Your task to perform on an android device: check google app version Image 0: 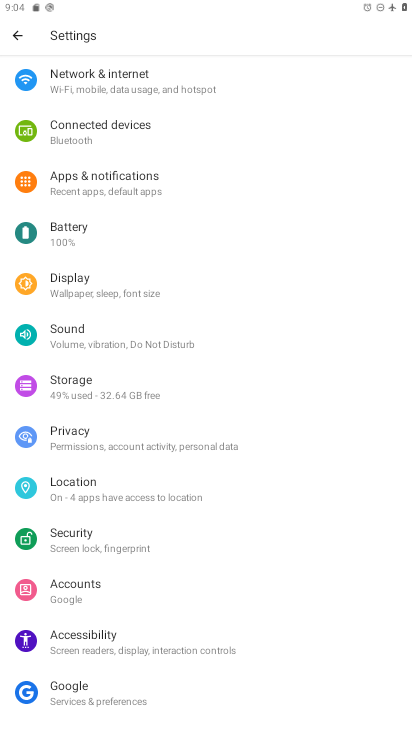
Step 0: press home button
Your task to perform on an android device: check google app version Image 1: 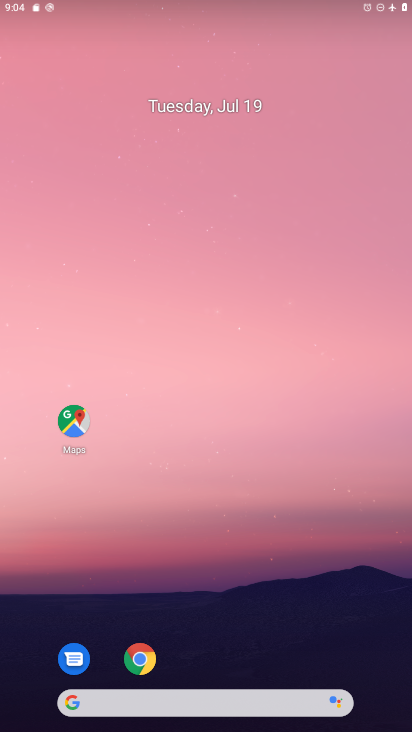
Step 1: drag from (243, 659) to (285, 293)
Your task to perform on an android device: check google app version Image 2: 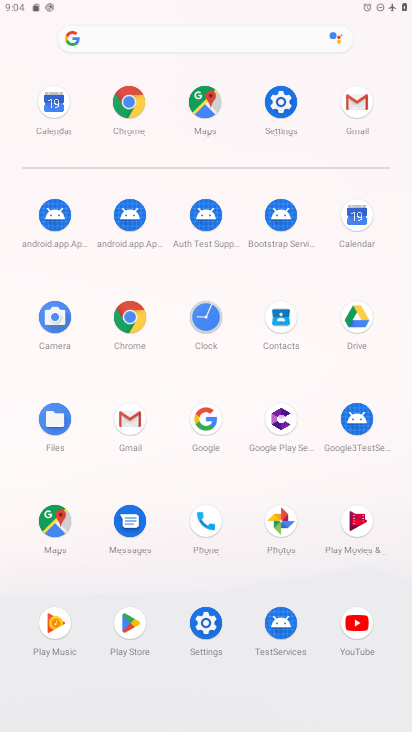
Step 2: click (206, 407)
Your task to perform on an android device: check google app version Image 3: 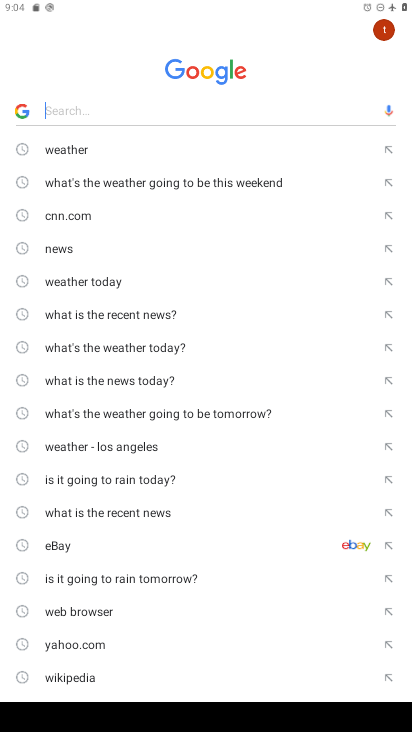
Step 3: click (384, 23)
Your task to perform on an android device: check google app version Image 4: 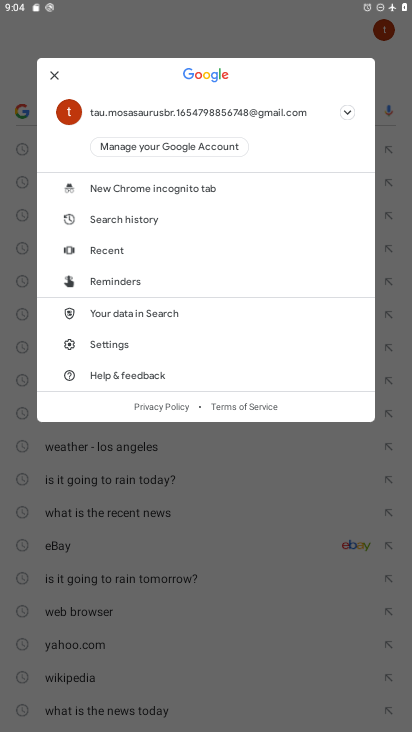
Step 4: click (124, 350)
Your task to perform on an android device: check google app version Image 5: 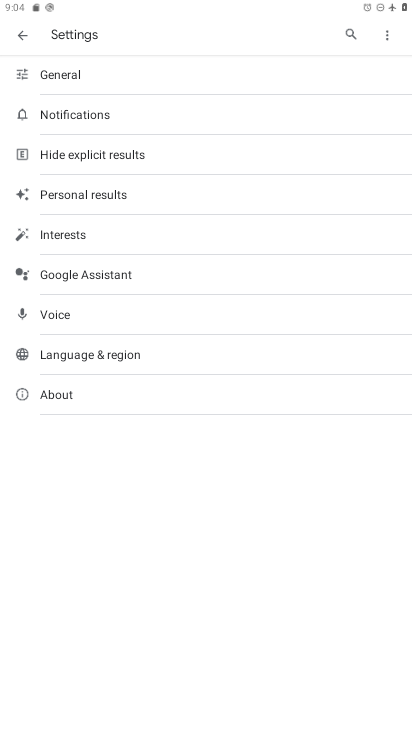
Step 5: click (143, 397)
Your task to perform on an android device: check google app version Image 6: 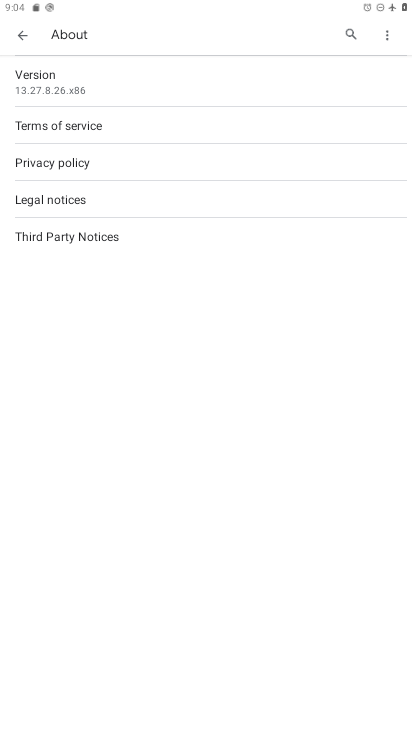
Step 6: click (74, 83)
Your task to perform on an android device: check google app version Image 7: 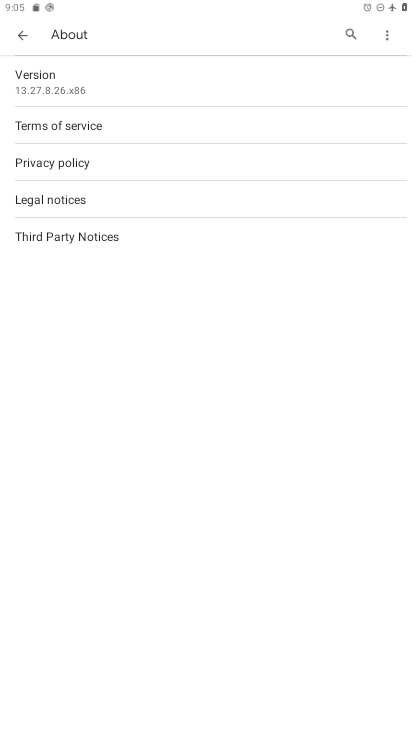
Step 7: task complete